Your task to perform on an android device: Open Google Chrome and open the bookmarks view Image 0: 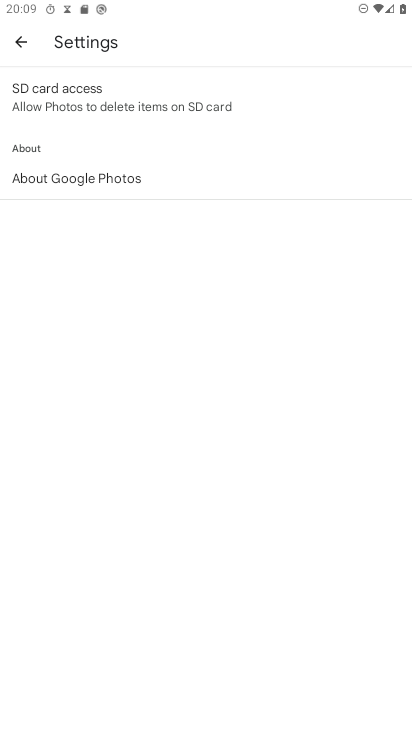
Step 0: press home button
Your task to perform on an android device: Open Google Chrome and open the bookmarks view Image 1: 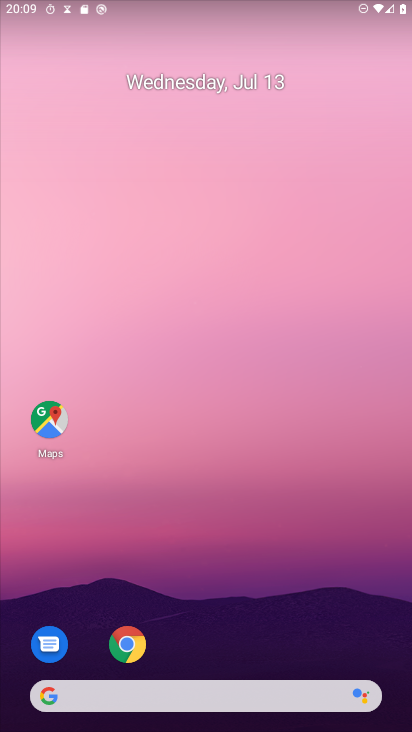
Step 1: click (126, 626)
Your task to perform on an android device: Open Google Chrome and open the bookmarks view Image 2: 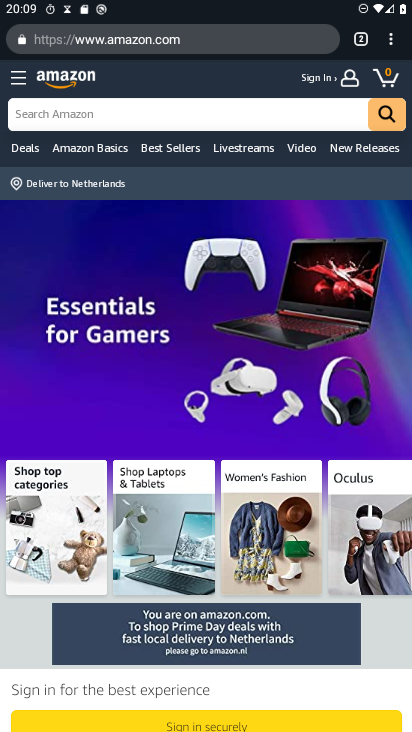
Step 2: click (385, 41)
Your task to perform on an android device: Open Google Chrome and open the bookmarks view Image 3: 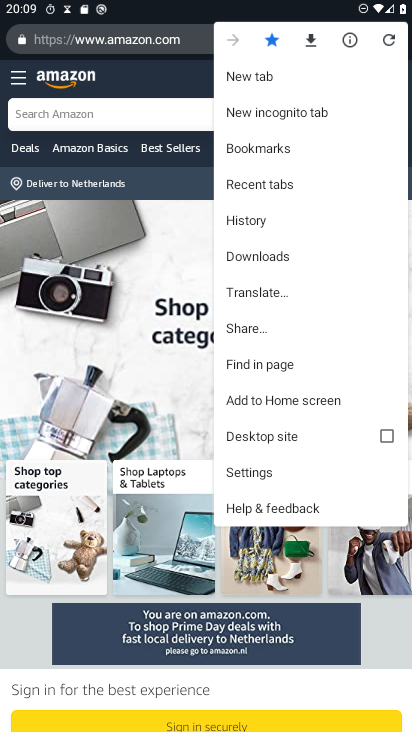
Step 3: click (289, 149)
Your task to perform on an android device: Open Google Chrome and open the bookmarks view Image 4: 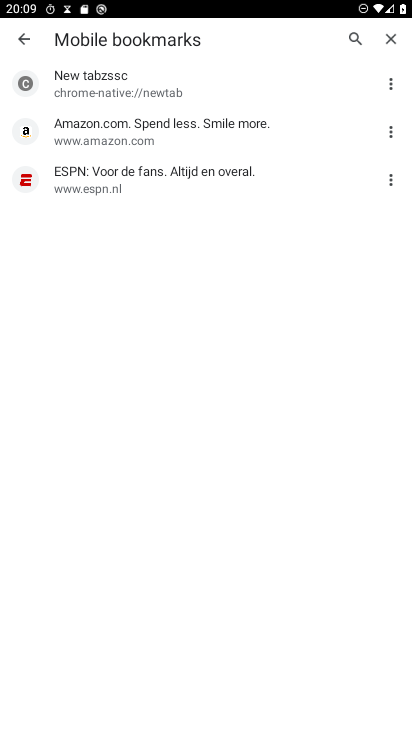
Step 4: task complete